Your task to perform on an android device: check out phone information Image 0: 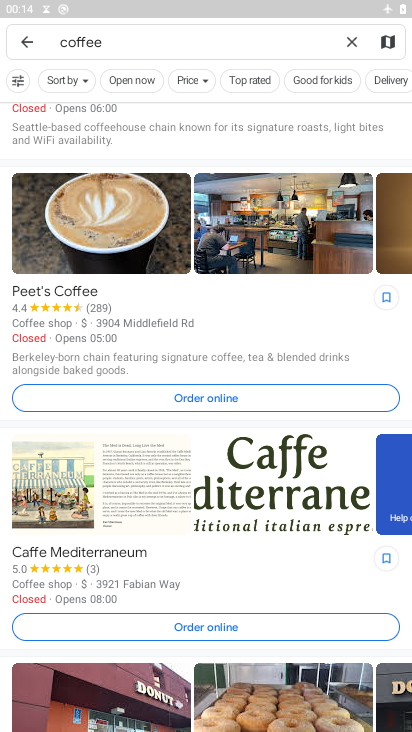
Step 0: press home button
Your task to perform on an android device: check out phone information Image 1: 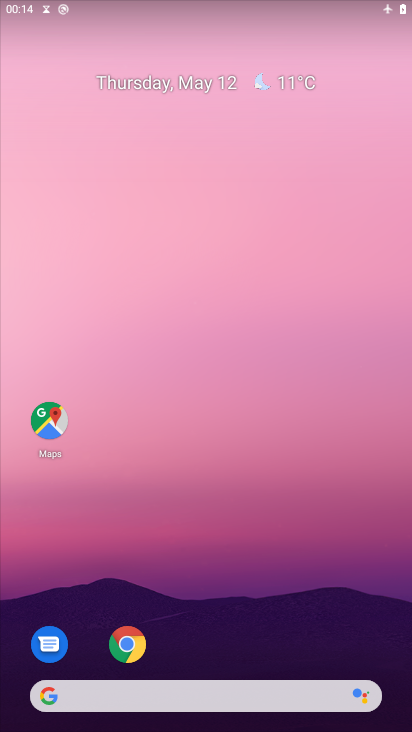
Step 1: drag from (201, 652) to (232, 47)
Your task to perform on an android device: check out phone information Image 2: 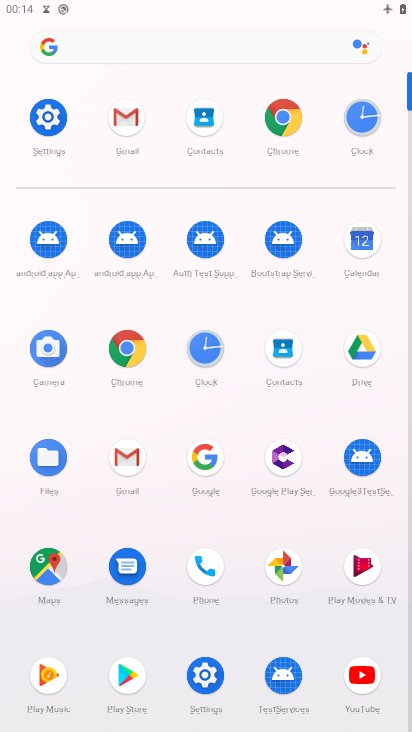
Step 2: click (44, 108)
Your task to perform on an android device: check out phone information Image 3: 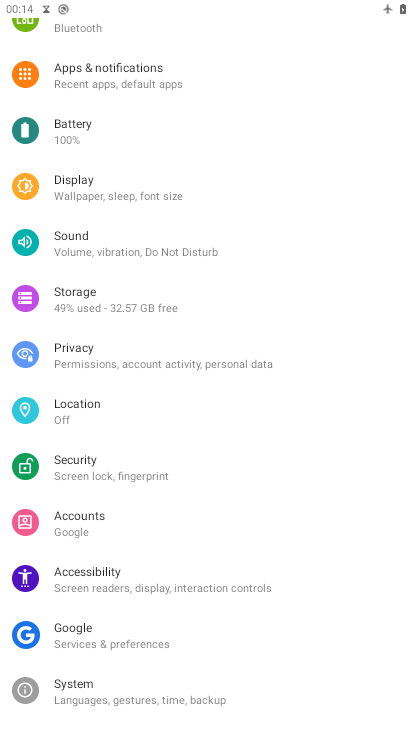
Step 3: drag from (138, 682) to (128, 317)
Your task to perform on an android device: check out phone information Image 4: 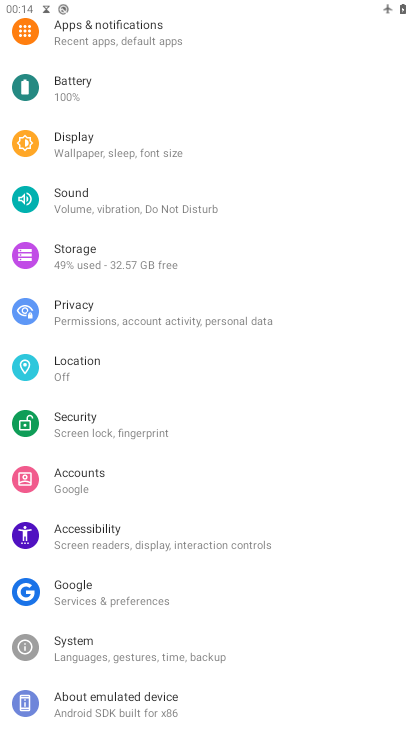
Step 4: click (191, 699)
Your task to perform on an android device: check out phone information Image 5: 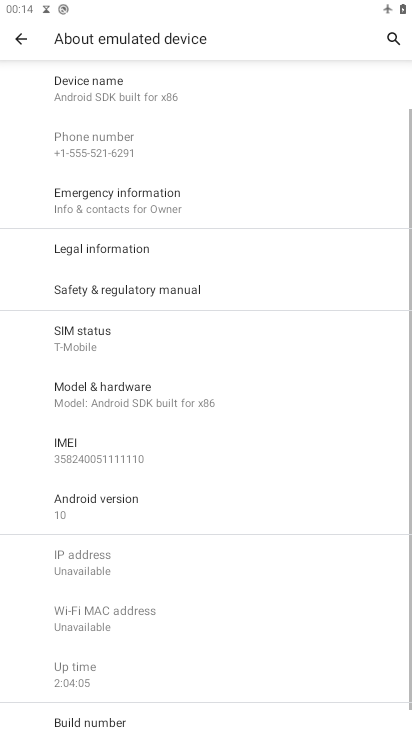
Step 5: task complete